Your task to perform on an android device: set the timer Image 0: 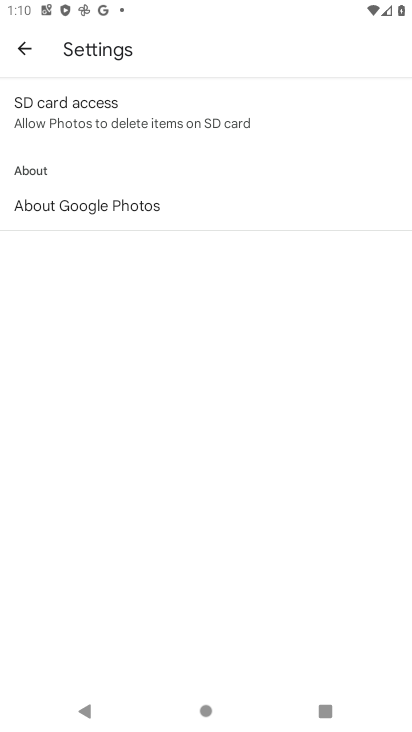
Step 0: press home button
Your task to perform on an android device: set the timer Image 1: 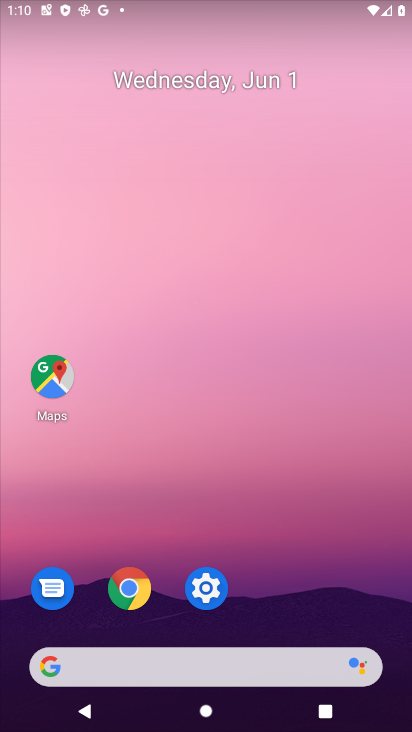
Step 1: drag from (271, 684) to (399, 20)
Your task to perform on an android device: set the timer Image 2: 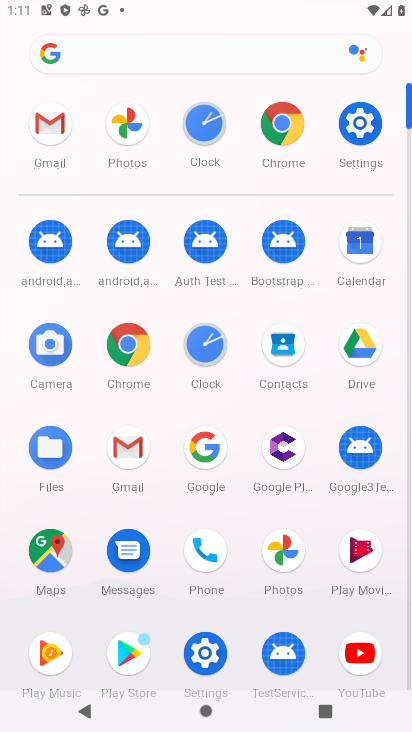
Step 2: click (197, 355)
Your task to perform on an android device: set the timer Image 3: 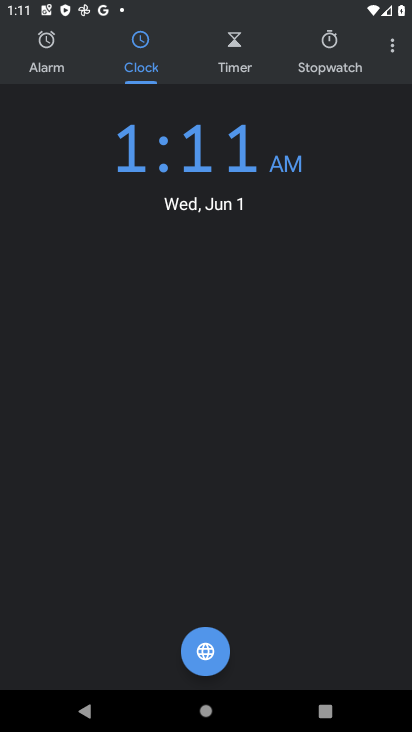
Step 3: click (387, 57)
Your task to perform on an android device: set the timer Image 4: 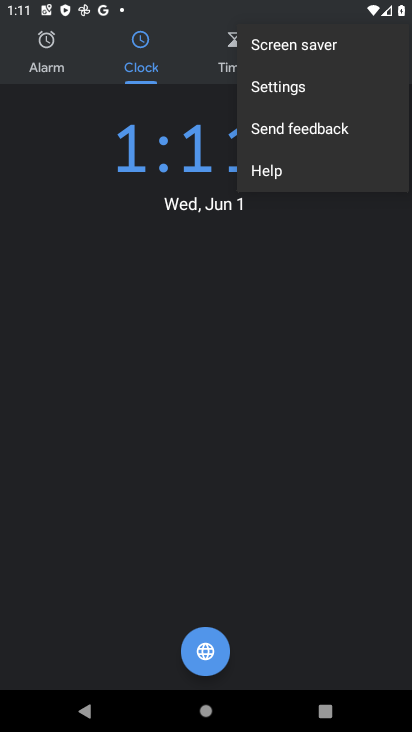
Step 4: click (268, 83)
Your task to perform on an android device: set the timer Image 5: 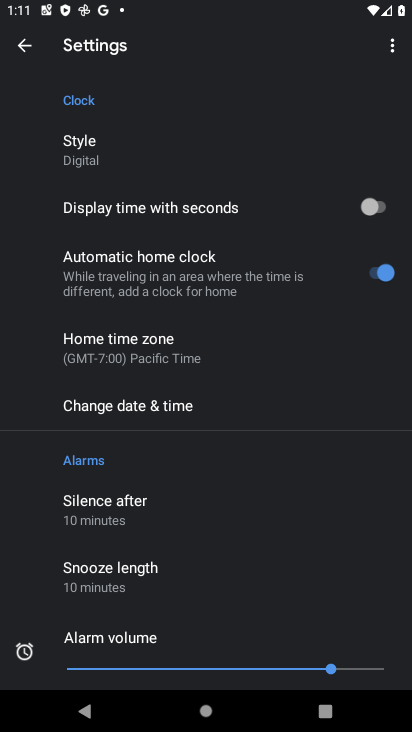
Step 5: drag from (172, 486) to (205, 229)
Your task to perform on an android device: set the timer Image 6: 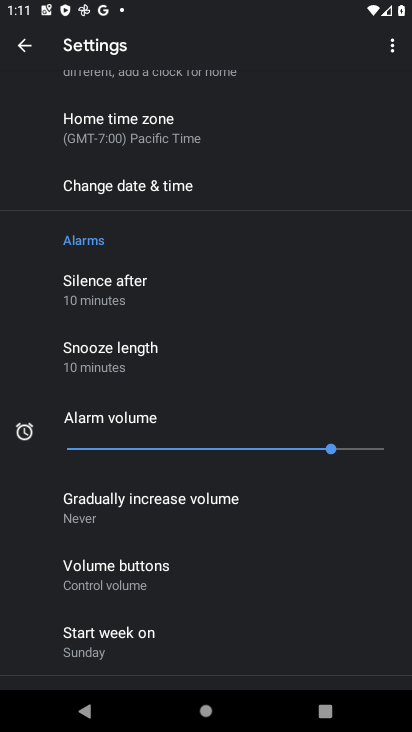
Step 6: drag from (128, 576) to (183, 381)
Your task to perform on an android device: set the timer Image 7: 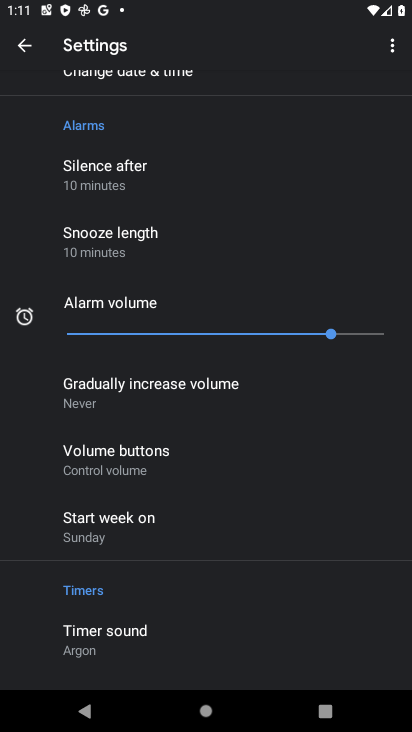
Step 7: click (98, 633)
Your task to perform on an android device: set the timer Image 8: 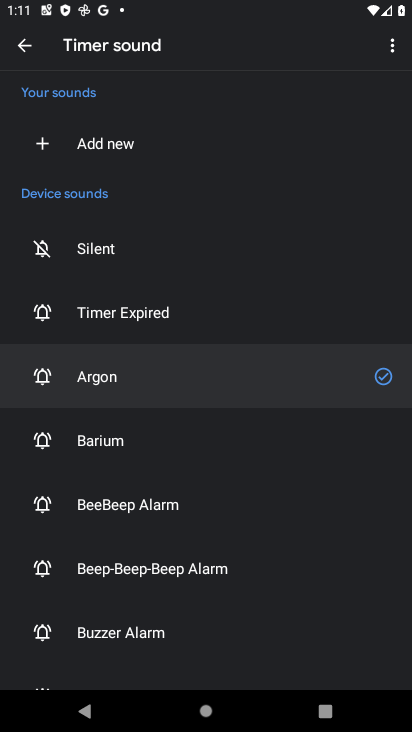
Step 8: click (87, 436)
Your task to perform on an android device: set the timer Image 9: 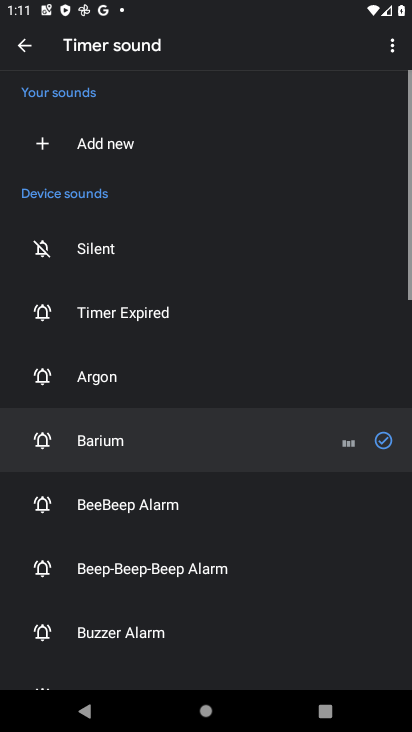
Step 9: task complete